Your task to perform on an android device: turn off location Image 0: 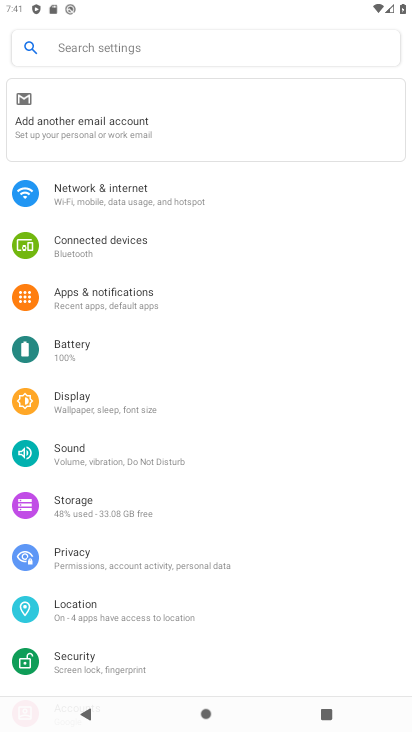
Step 0: click (154, 605)
Your task to perform on an android device: turn off location Image 1: 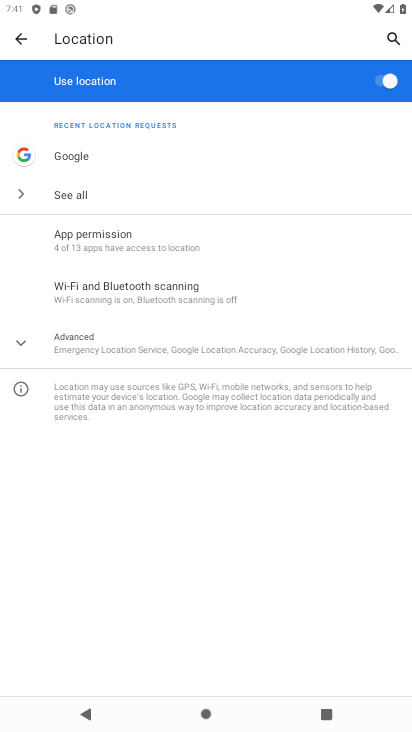
Step 1: click (383, 81)
Your task to perform on an android device: turn off location Image 2: 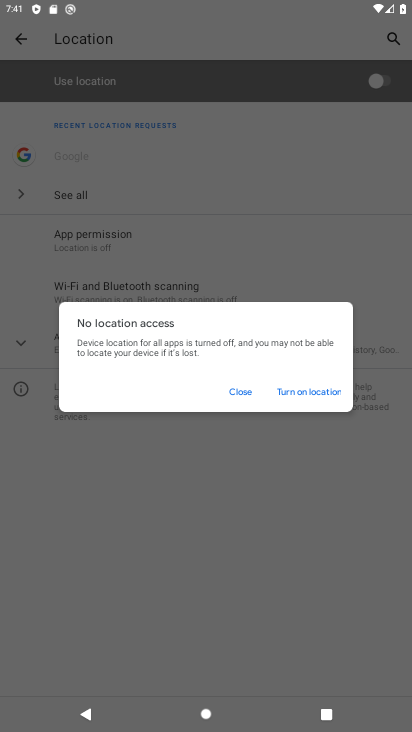
Step 2: task complete